Your task to perform on an android device: Go to Android settings Image 0: 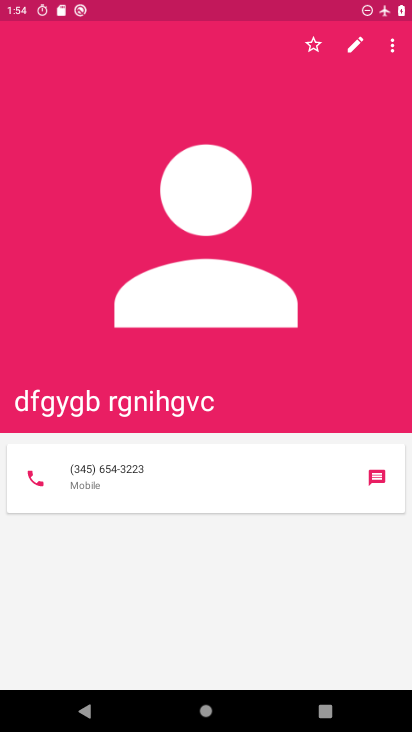
Step 0: press back button
Your task to perform on an android device: Go to Android settings Image 1: 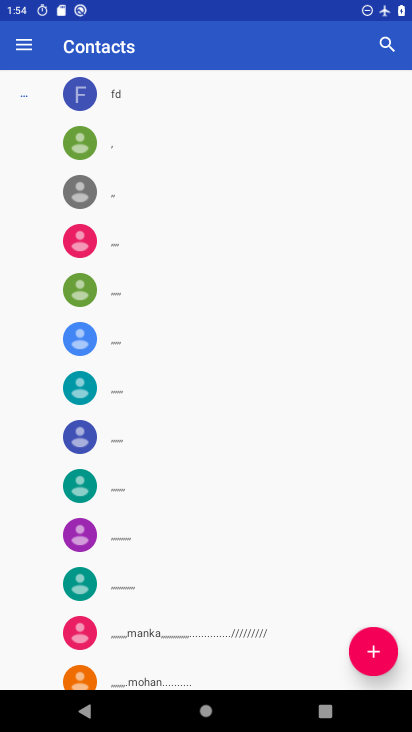
Step 1: press back button
Your task to perform on an android device: Go to Android settings Image 2: 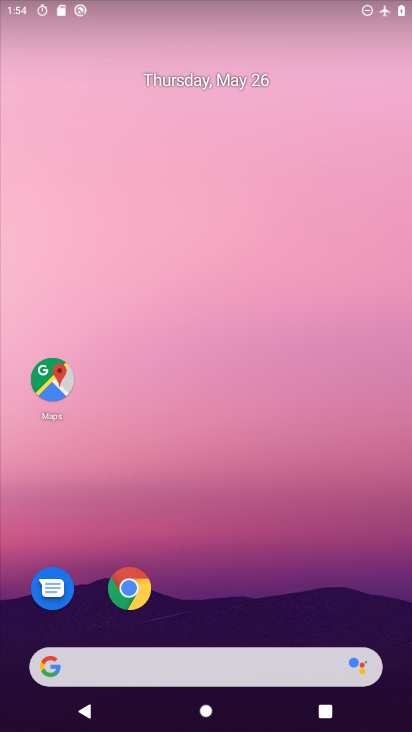
Step 2: drag from (389, 692) to (363, 354)
Your task to perform on an android device: Go to Android settings Image 3: 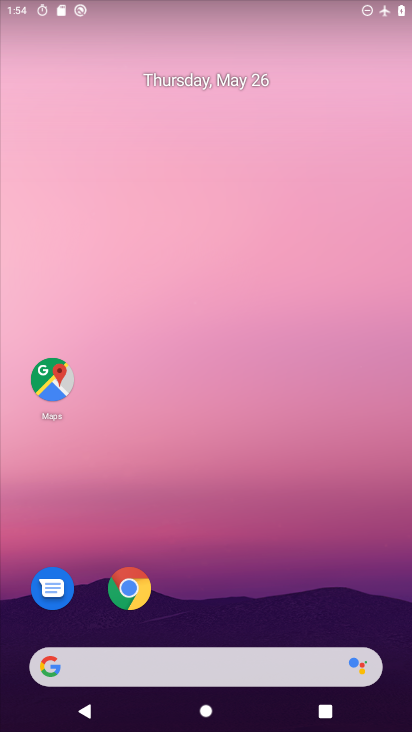
Step 3: drag from (400, 701) to (285, 186)
Your task to perform on an android device: Go to Android settings Image 4: 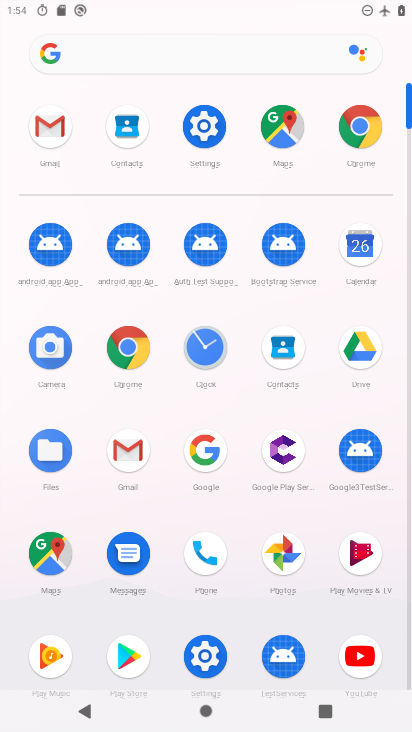
Step 4: click (194, 124)
Your task to perform on an android device: Go to Android settings Image 5: 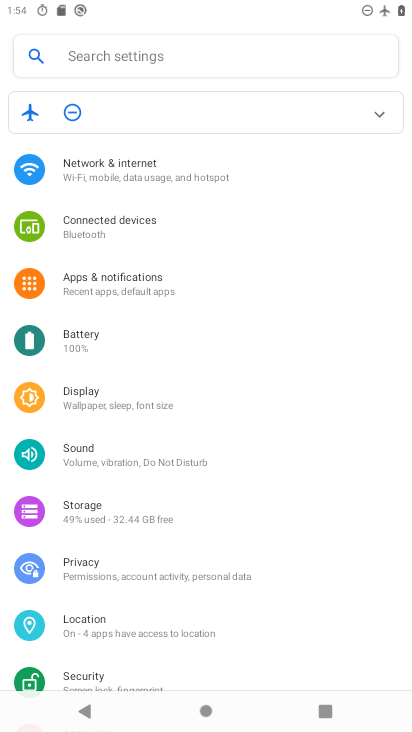
Step 5: task complete